Your task to perform on an android device: Search for pizza restaurants on Maps Image 0: 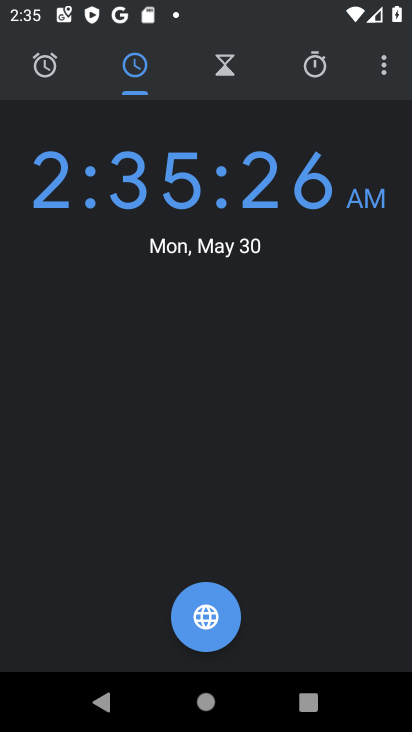
Step 0: press home button
Your task to perform on an android device: Search for pizza restaurants on Maps Image 1: 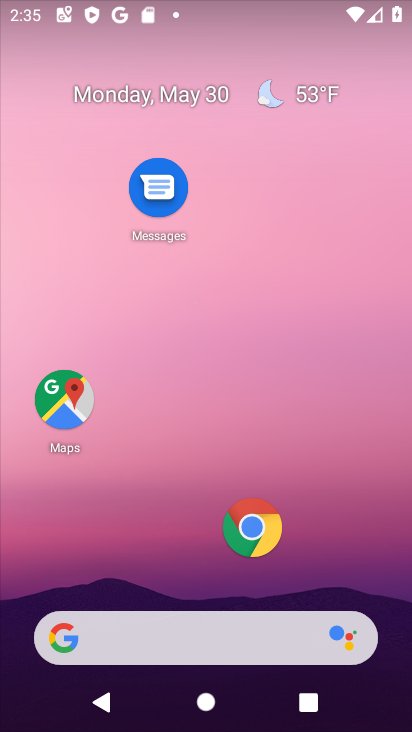
Step 1: drag from (191, 554) to (251, 201)
Your task to perform on an android device: Search for pizza restaurants on Maps Image 2: 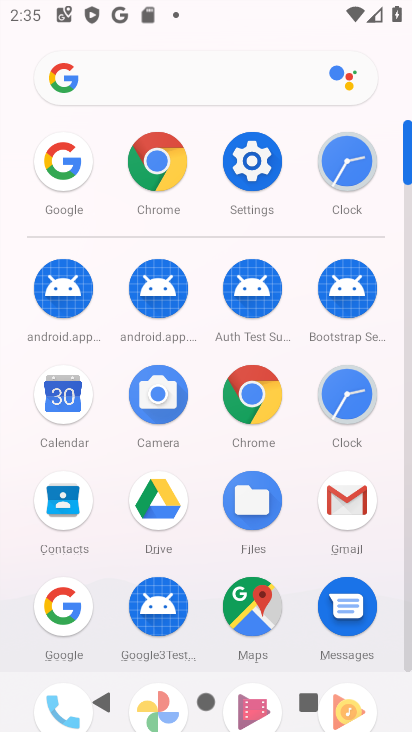
Step 2: drag from (199, 269) to (221, 98)
Your task to perform on an android device: Search for pizza restaurants on Maps Image 3: 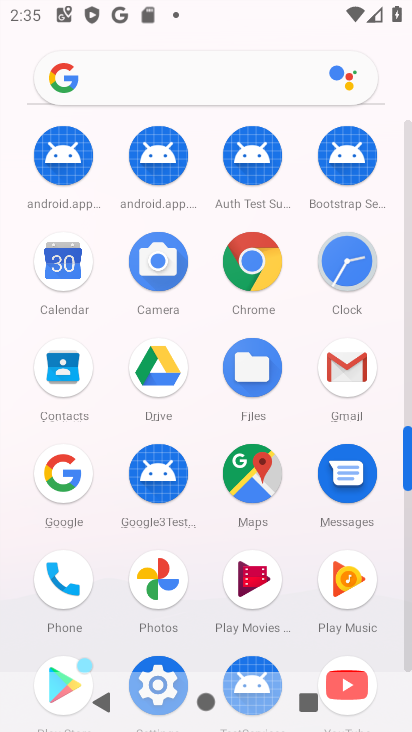
Step 3: drag from (202, 226) to (192, 65)
Your task to perform on an android device: Search for pizza restaurants on Maps Image 4: 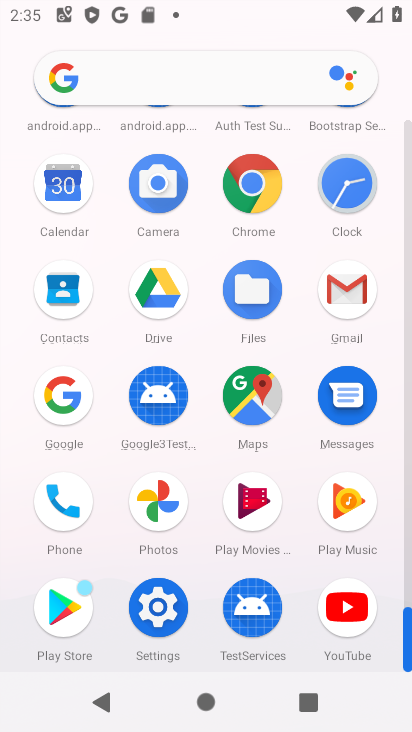
Step 4: click (263, 402)
Your task to perform on an android device: Search for pizza restaurants on Maps Image 5: 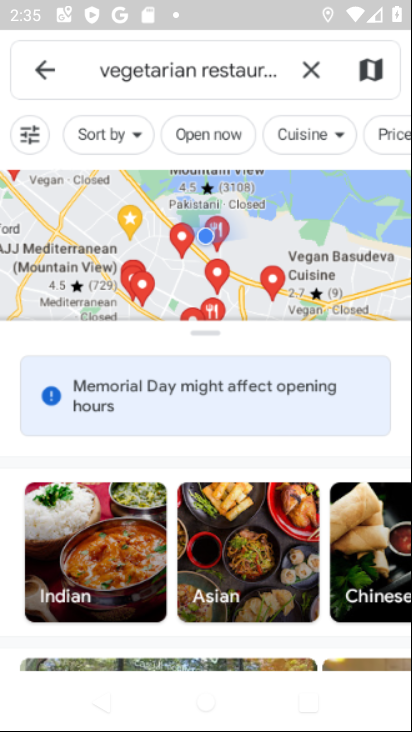
Step 5: click (314, 79)
Your task to perform on an android device: Search for pizza restaurants on Maps Image 6: 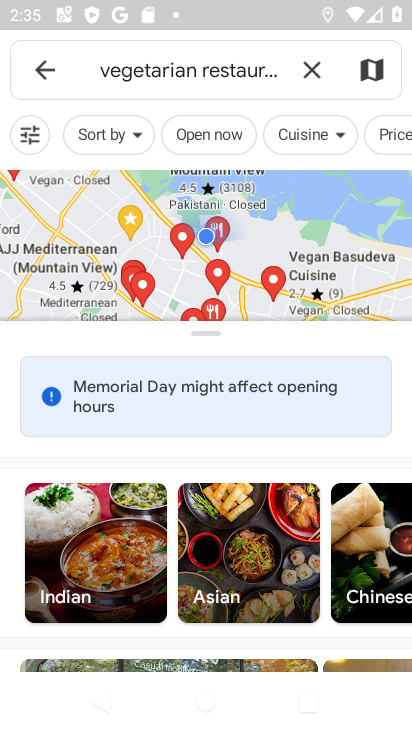
Step 6: click (318, 65)
Your task to perform on an android device: Search for pizza restaurants on Maps Image 7: 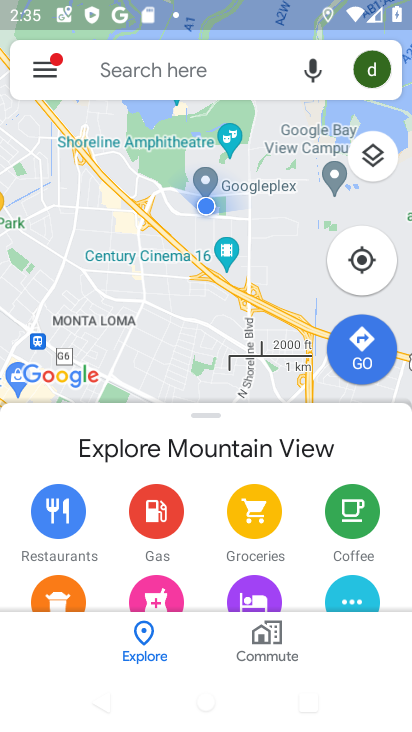
Step 7: click (270, 74)
Your task to perform on an android device: Search for pizza restaurants on Maps Image 8: 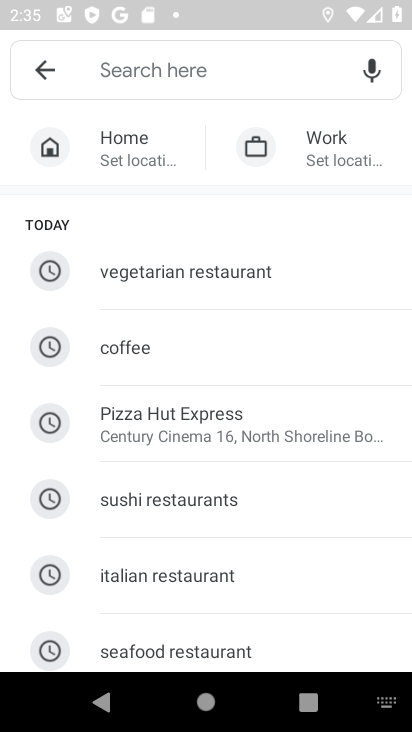
Step 8: drag from (213, 585) to (230, 252)
Your task to perform on an android device: Search for pizza restaurants on Maps Image 9: 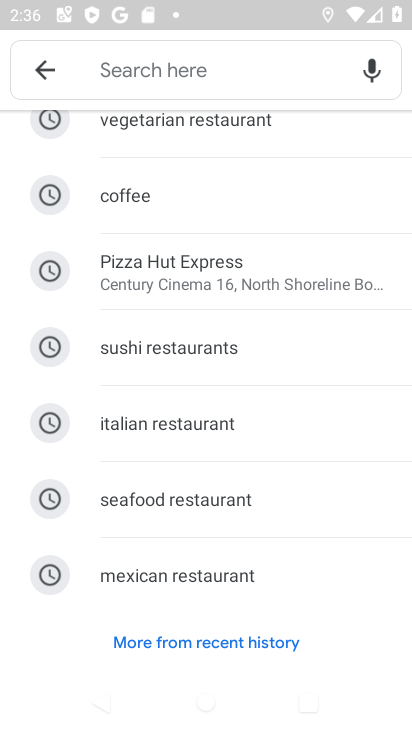
Step 9: type "pizza restaurants"
Your task to perform on an android device: Search for pizza restaurants on Maps Image 10: 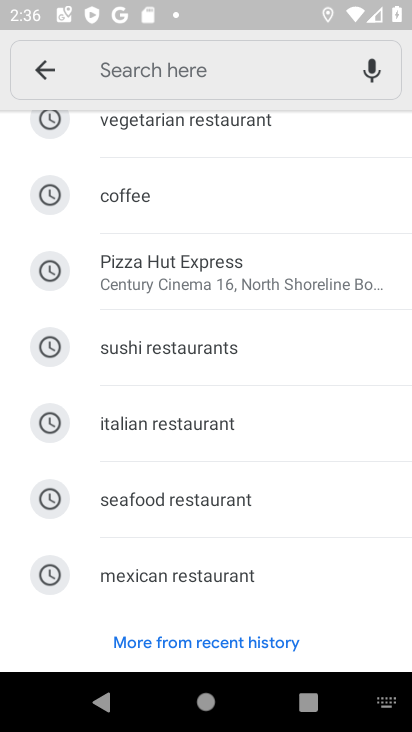
Step 10: type ""
Your task to perform on an android device: Search for pizza restaurants on Maps Image 11: 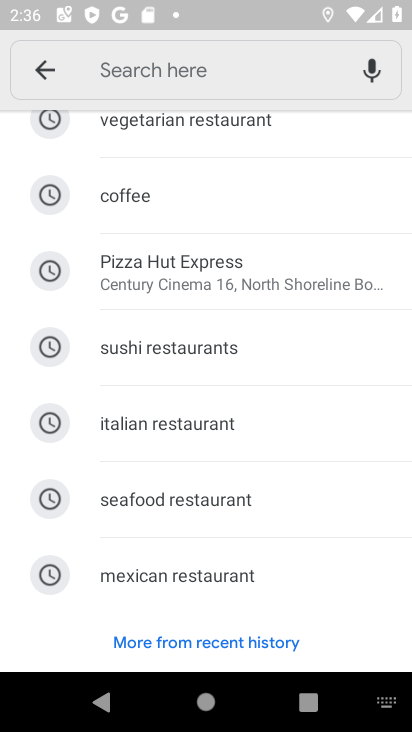
Step 11: click (225, 76)
Your task to perform on an android device: Search for pizza restaurants on Maps Image 12: 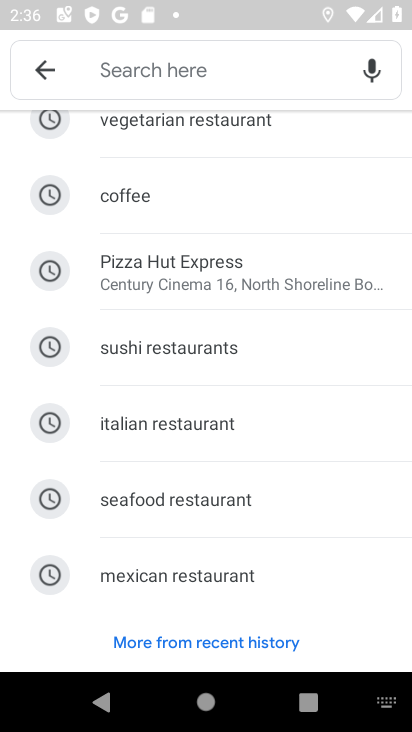
Step 12: type "pizza restaurants"
Your task to perform on an android device: Search for pizza restaurants on Maps Image 13: 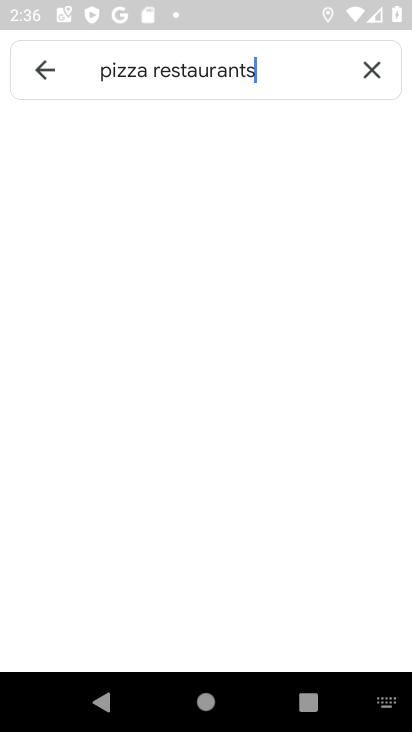
Step 13: type ""
Your task to perform on an android device: Search for pizza restaurants on Maps Image 14: 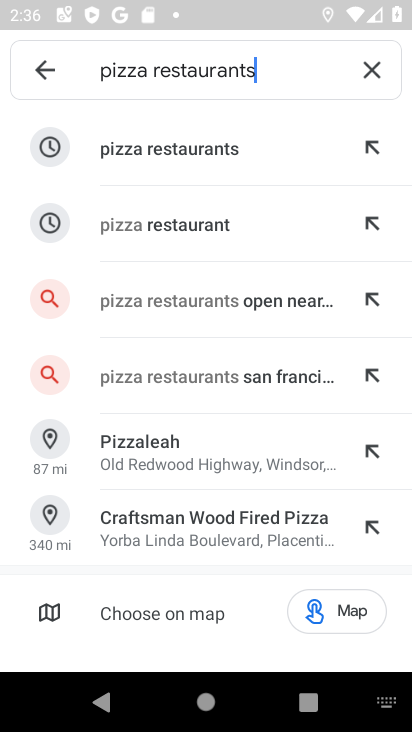
Step 14: click (241, 162)
Your task to perform on an android device: Search for pizza restaurants on Maps Image 15: 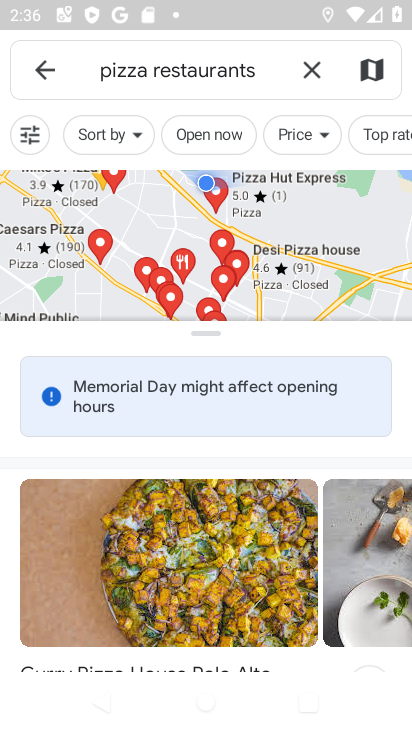
Step 15: task complete